Your task to perform on an android device: change the clock style Image 0: 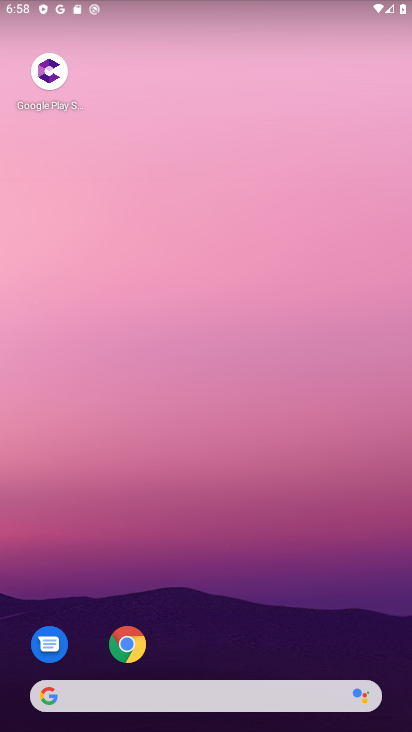
Step 0: drag from (253, 338) to (257, 159)
Your task to perform on an android device: change the clock style Image 1: 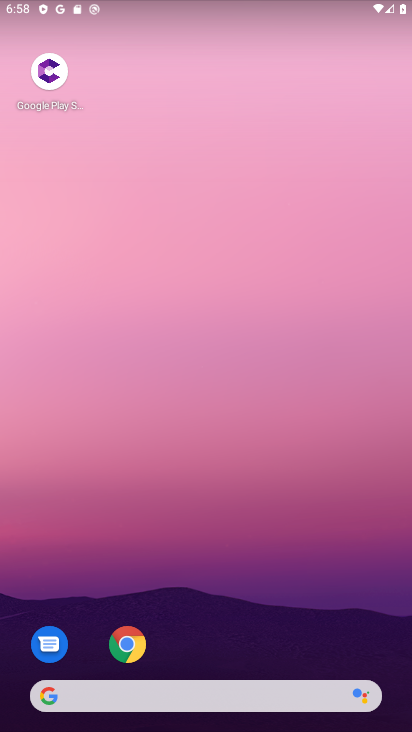
Step 1: drag from (244, 438) to (149, 2)
Your task to perform on an android device: change the clock style Image 2: 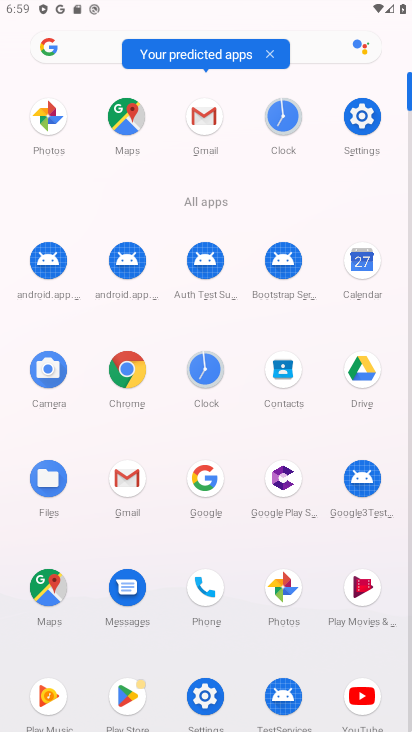
Step 2: click (278, 125)
Your task to perform on an android device: change the clock style Image 3: 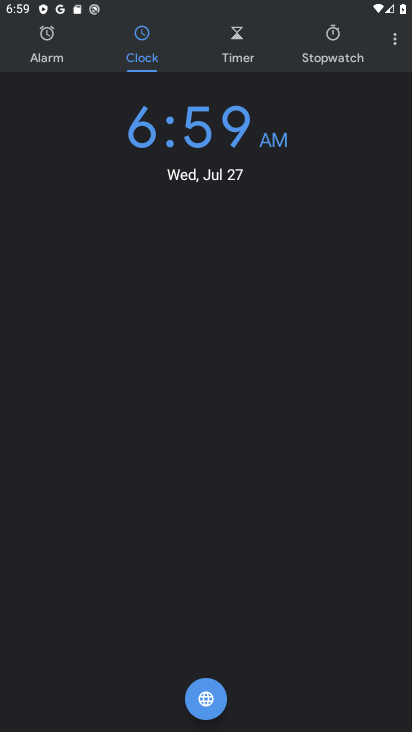
Step 3: click (398, 44)
Your task to perform on an android device: change the clock style Image 4: 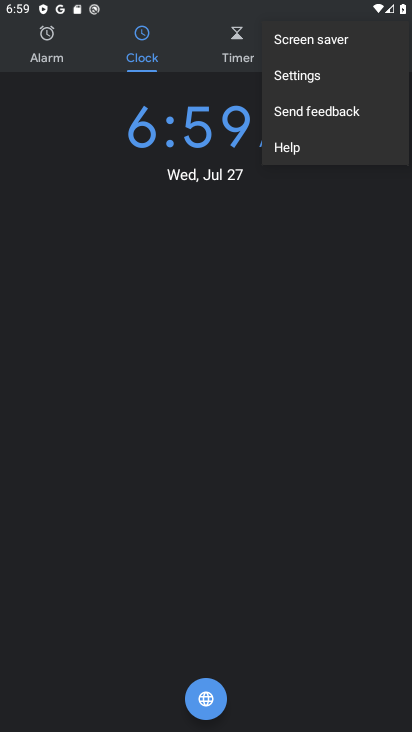
Step 4: click (303, 68)
Your task to perform on an android device: change the clock style Image 5: 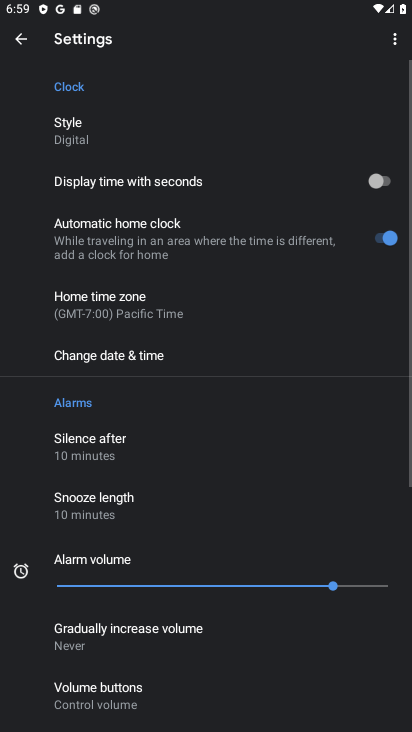
Step 5: click (124, 142)
Your task to perform on an android device: change the clock style Image 6: 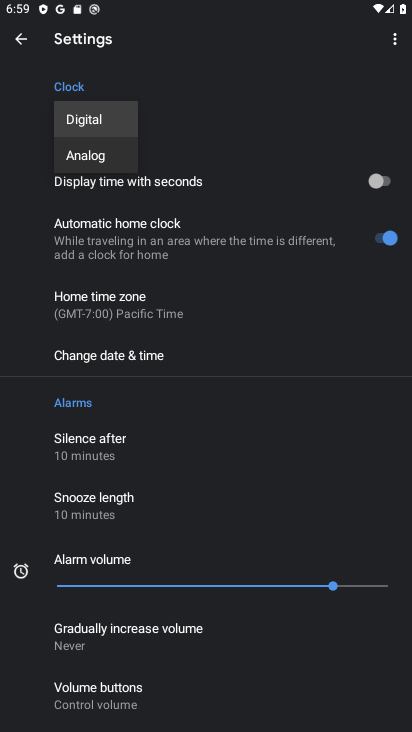
Step 6: click (95, 156)
Your task to perform on an android device: change the clock style Image 7: 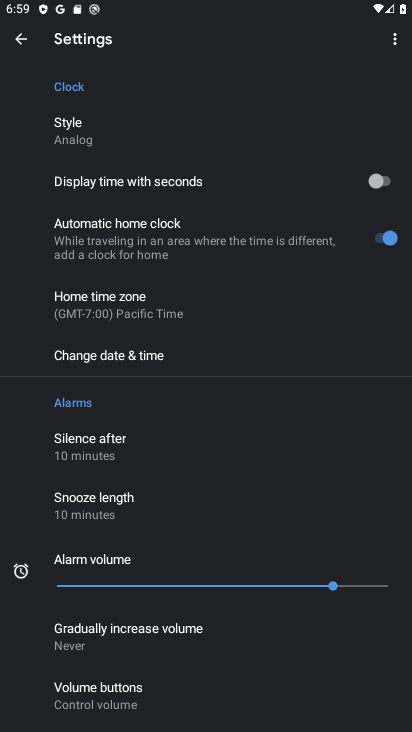
Step 7: task complete